Your task to perform on an android device: Open maps Image 0: 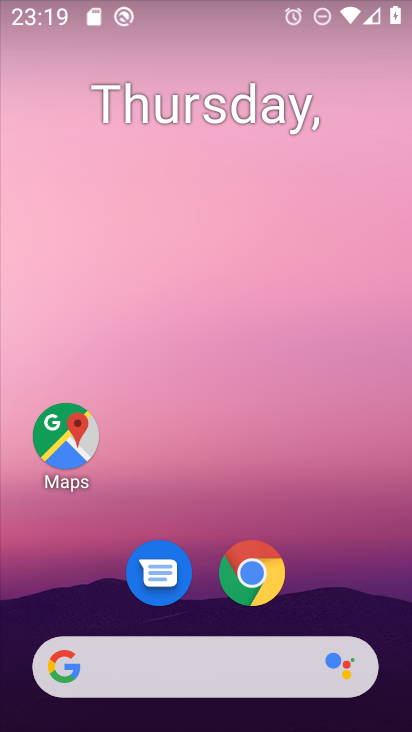
Step 0: click (77, 415)
Your task to perform on an android device: Open maps Image 1: 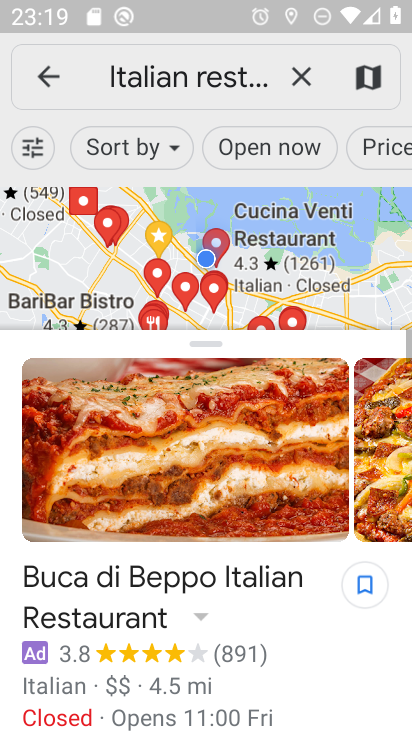
Step 1: task complete